Your task to perform on an android device: turn on showing notifications on the lock screen Image 0: 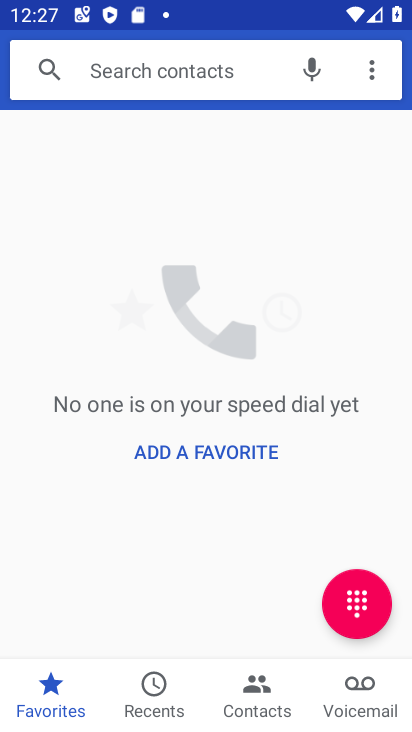
Step 0: press home button
Your task to perform on an android device: turn on showing notifications on the lock screen Image 1: 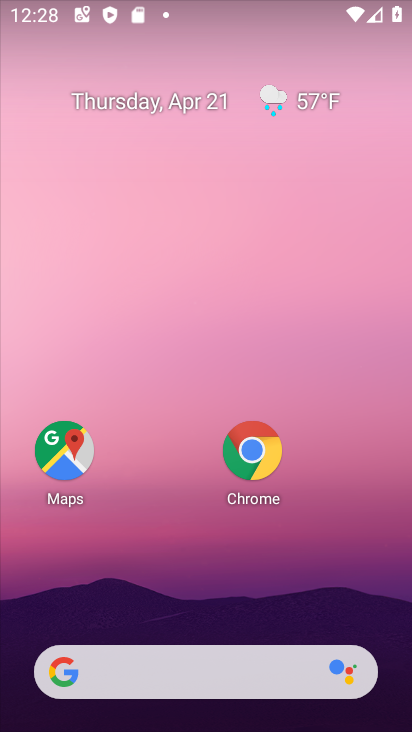
Step 1: drag from (227, 389) to (218, 119)
Your task to perform on an android device: turn on showing notifications on the lock screen Image 2: 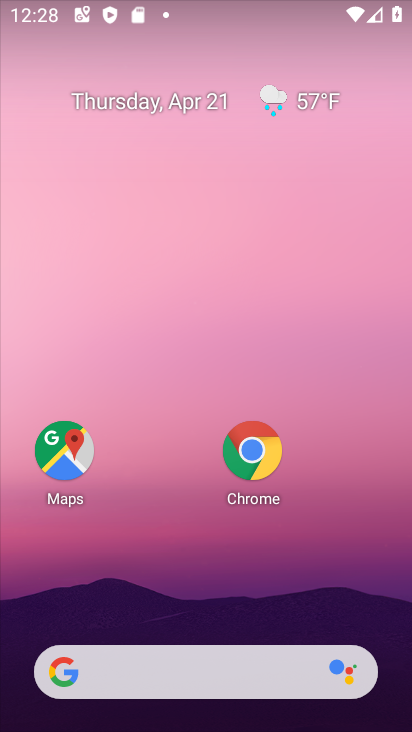
Step 2: drag from (161, 624) to (218, 37)
Your task to perform on an android device: turn on showing notifications on the lock screen Image 3: 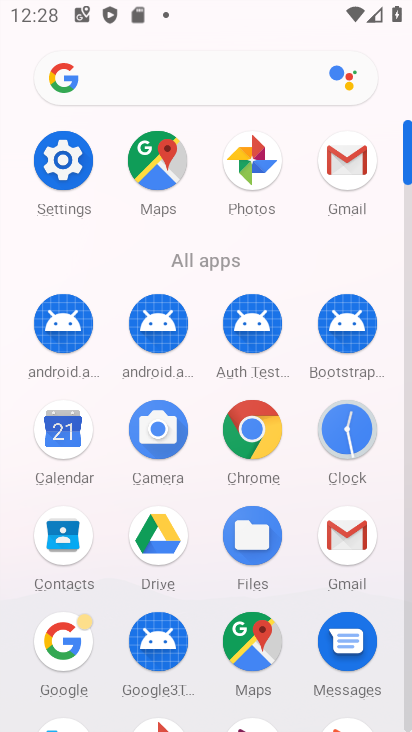
Step 3: click (51, 175)
Your task to perform on an android device: turn on showing notifications on the lock screen Image 4: 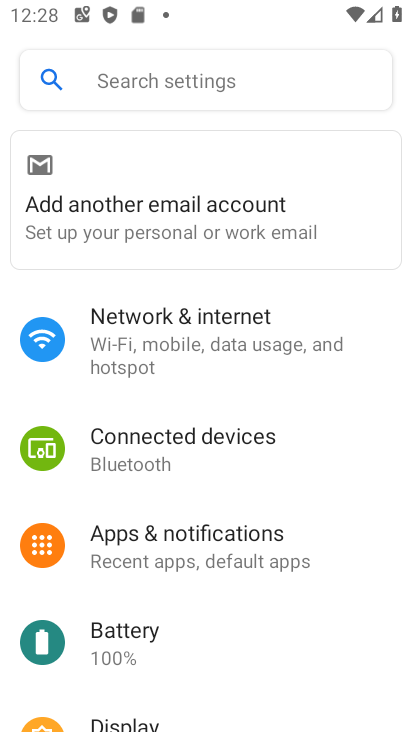
Step 4: drag from (165, 573) to (199, 277)
Your task to perform on an android device: turn on showing notifications on the lock screen Image 5: 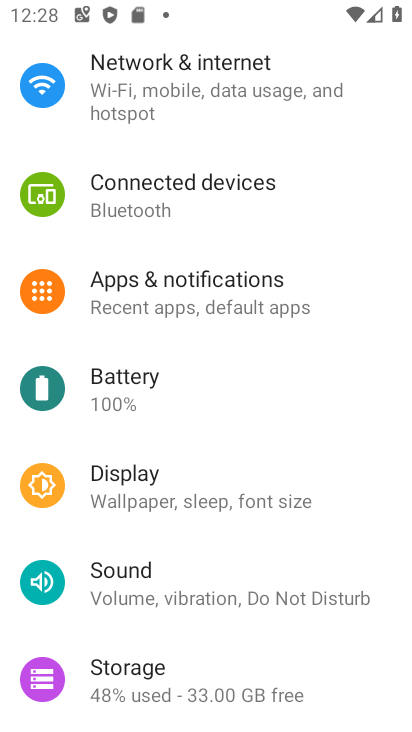
Step 5: click (181, 291)
Your task to perform on an android device: turn on showing notifications on the lock screen Image 6: 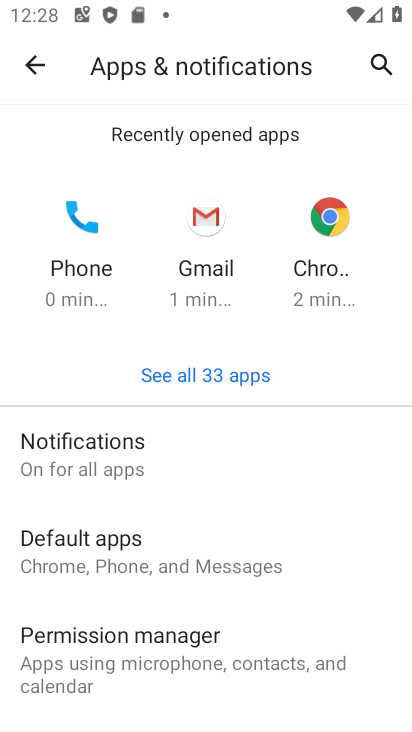
Step 6: click (125, 438)
Your task to perform on an android device: turn on showing notifications on the lock screen Image 7: 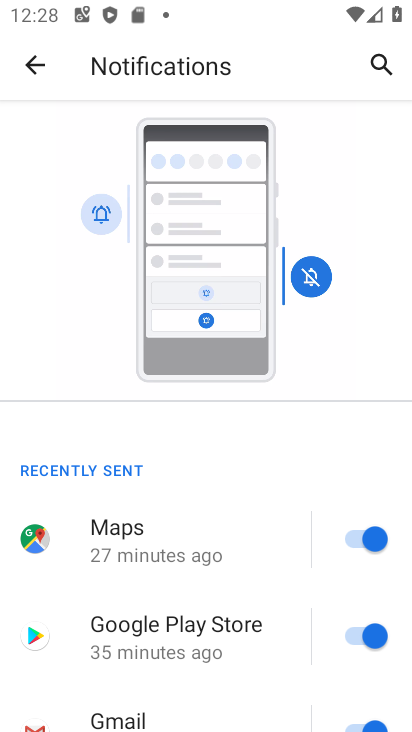
Step 7: drag from (148, 621) to (166, 215)
Your task to perform on an android device: turn on showing notifications on the lock screen Image 8: 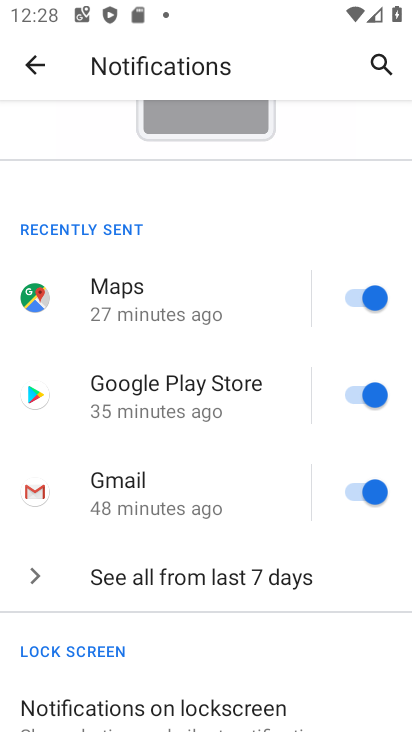
Step 8: drag from (173, 700) to (185, 480)
Your task to perform on an android device: turn on showing notifications on the lock screen Image 9: 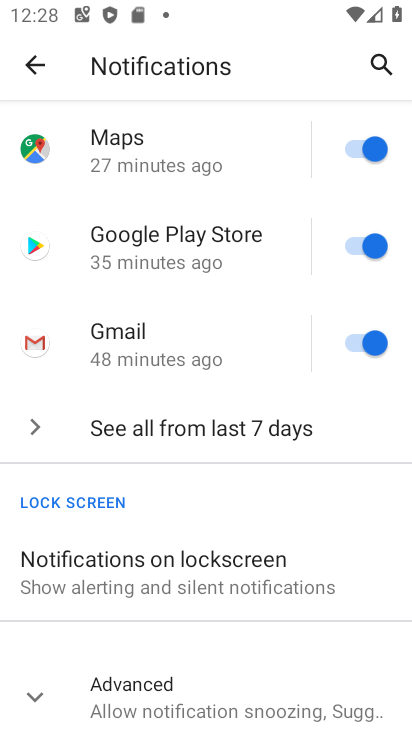
Step 9: click (127, 595)
Your task to perform on an android device: turn on showing notifications on the lock screen Image 10: 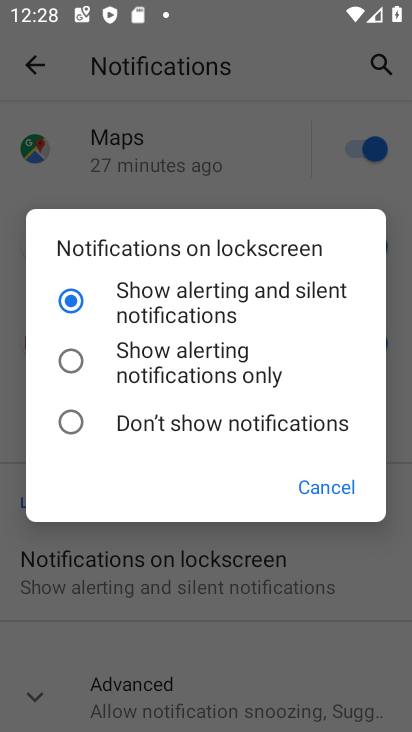
Step 10: task complete